Your task to perform on an android device: Go to CNN.com Image 0: 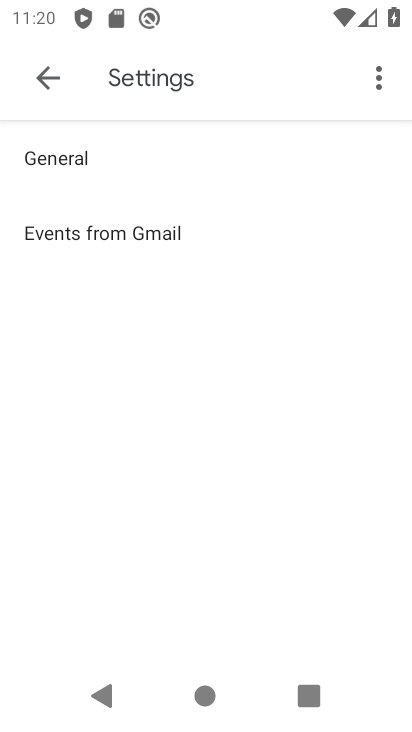
Step 0: drag from (236, 728) to (230, 113)
Your task to perform on an android device: Go to CNN.com Image 1: 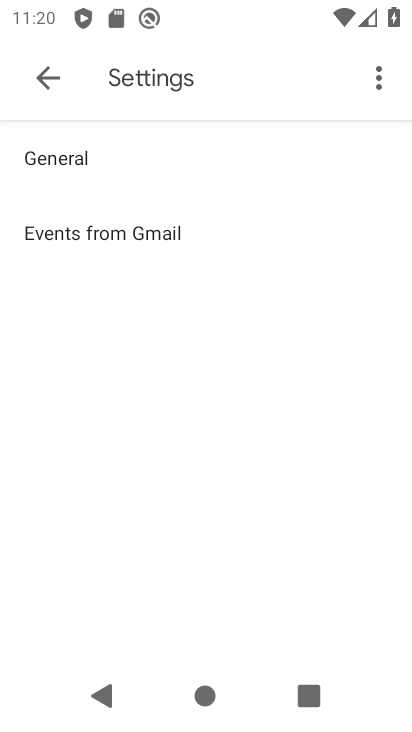
Step 1: press home button
Your task to perform on an android device: Go to CNN.com Image 2: 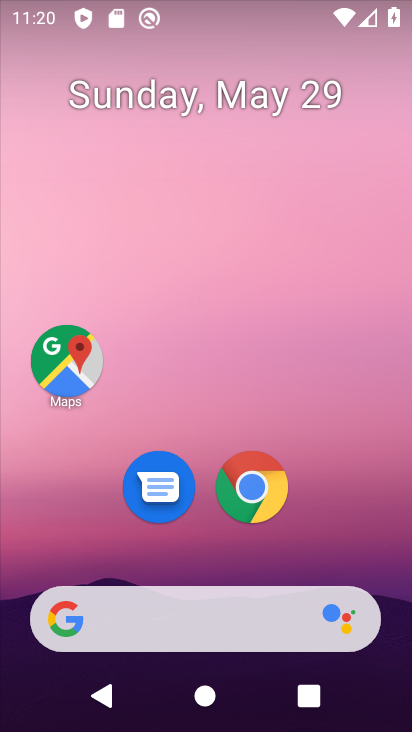
Step 2: click (251, 489)
Your task to perform on an android device: Go to CNN.com Image 3: 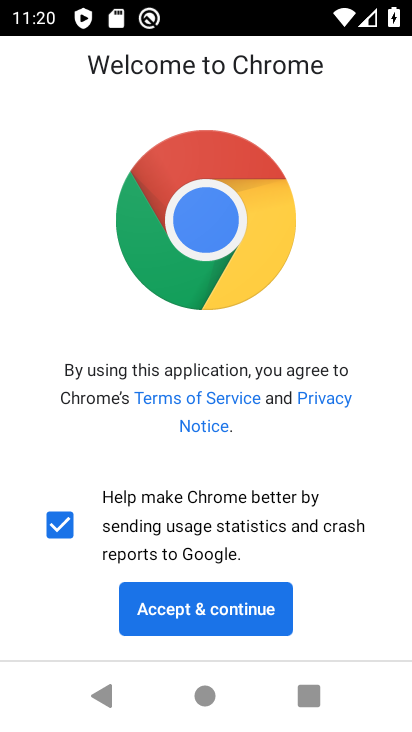
Step 3: click (210, 609)
Your task to perform on an android device: Go to CNN.com Image 4: 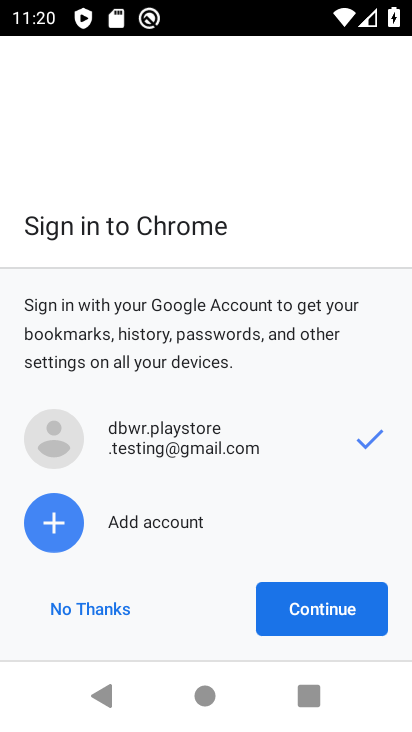
Step 4: click (322, 606)
Your task to perform on an android device: Go to CNN.com Image 5: 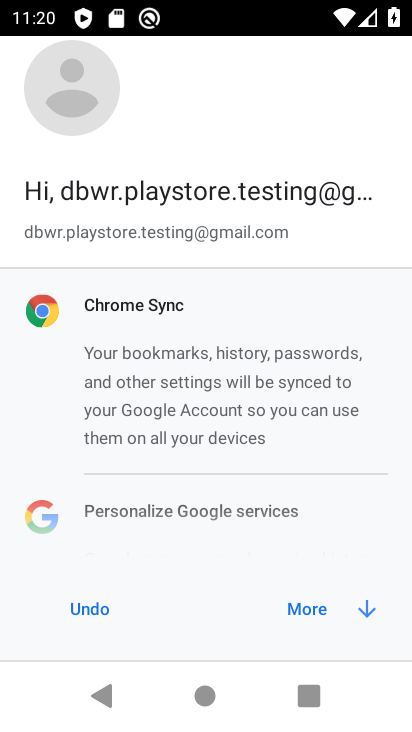
Step 5: click (322, 606)
Your task to perform on an android device: Go to CNN.com Image 6: 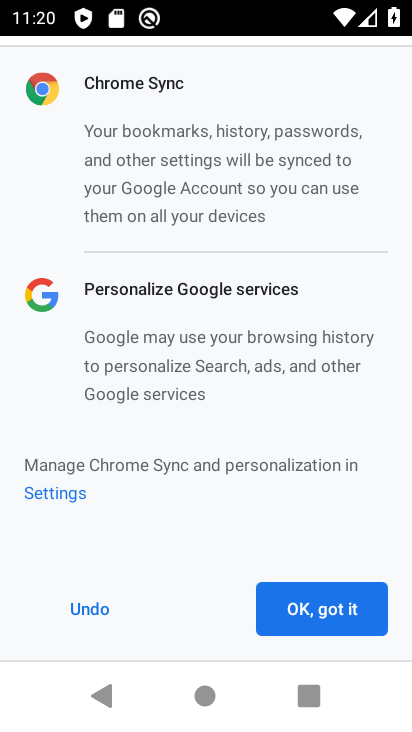
Step 6: click (322, 606)
Your task to perform on an android device: Go to CNN.com Image 7: 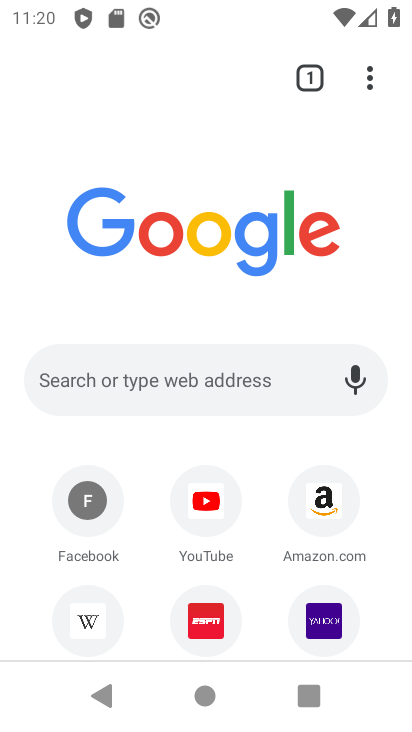
Step 7: drag from (152, 626) to (152, 448)
Your task to perform on an android device: Go to CNN.com Image 8: 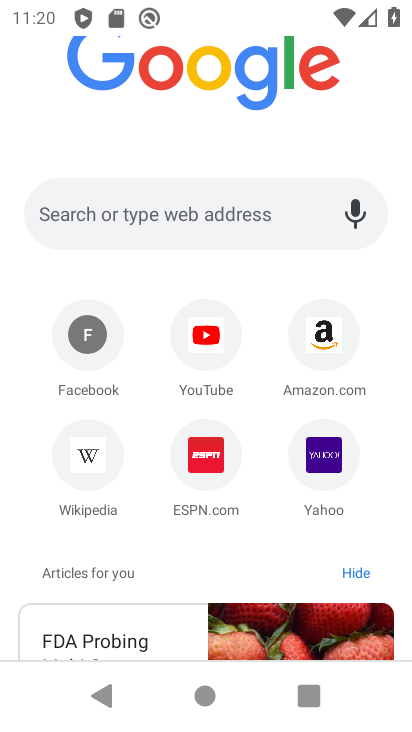
Step 8: click (155, 211)
Your task to perform on an android device: Go to CNN.com Image 9: 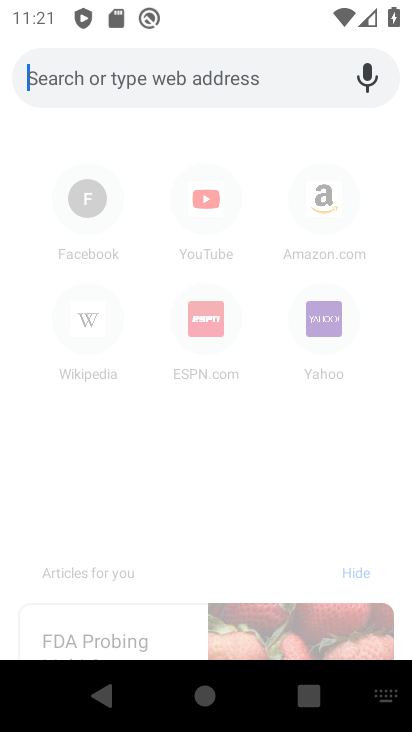
Step 9: type "CNN.com"
Your task to perform on an android device: Go to CNN.com Image 10: 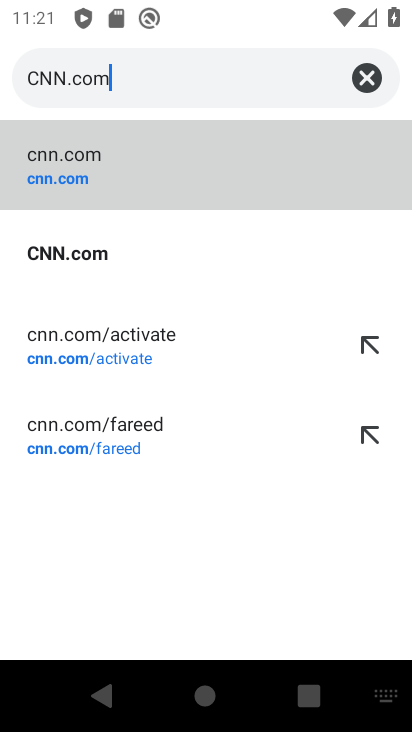
Step 10: click (78, 157)
Your task to perform on an android device: Go to CNN.com Image 11: 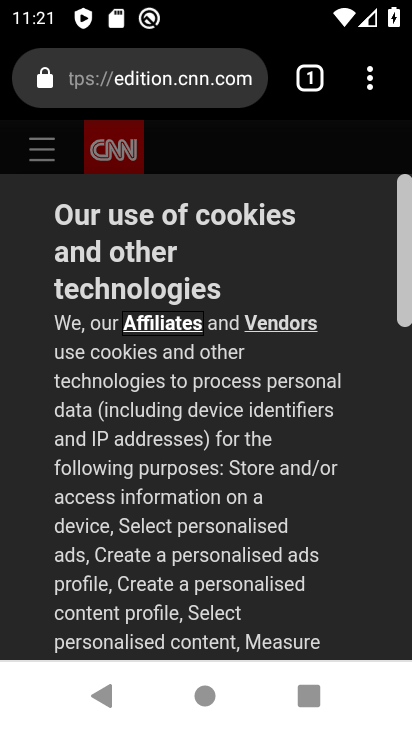
Step 11: task complete